Your task to perform on an android device: turn off javascript in the chrome app Image 0: 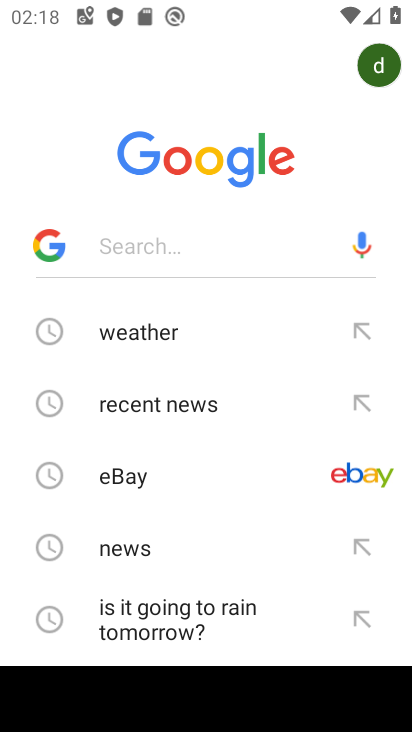
Step 0: press home button
Your task to perform on an android device: turn off javascript in the chrome app Image 1: 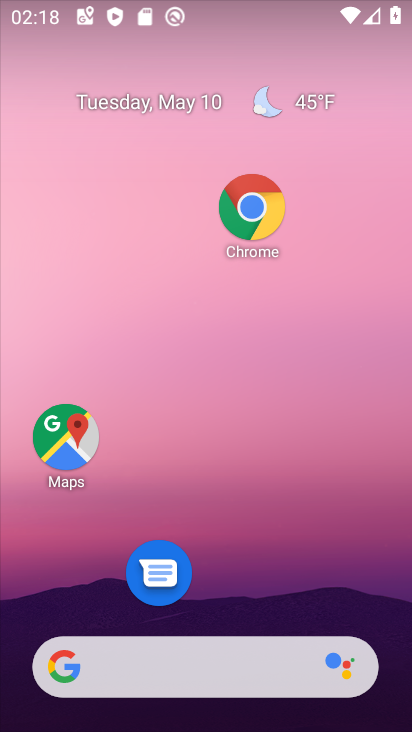
Step 1: drag from (252, 552) to (314, 3)
Your task to perform on an android device: turn off javascript in the chrome app Image 2: 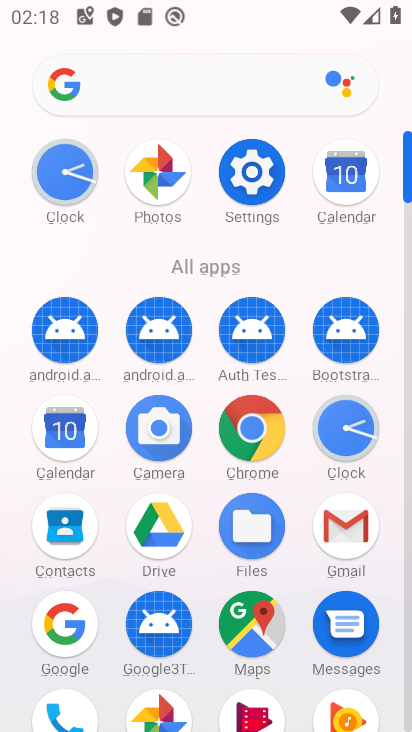
Step 2: click (245, 439)
Your task to perform on an android device: turn off javascript in the chrome app Image 3: 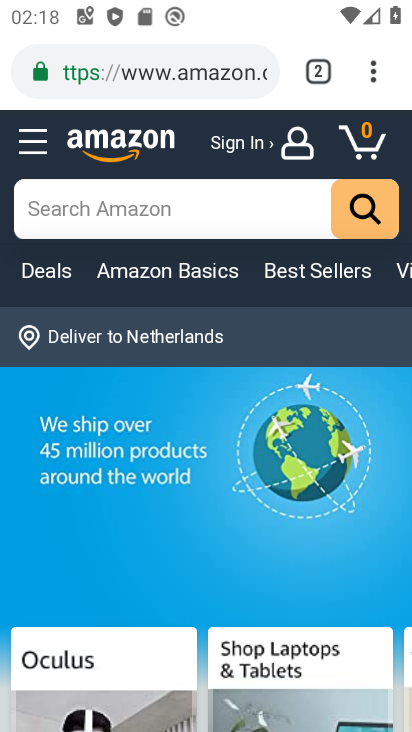
Step 3: click (376, 57)
Your task to perform on an android device: turn off javascript in the chrome app Image 4: 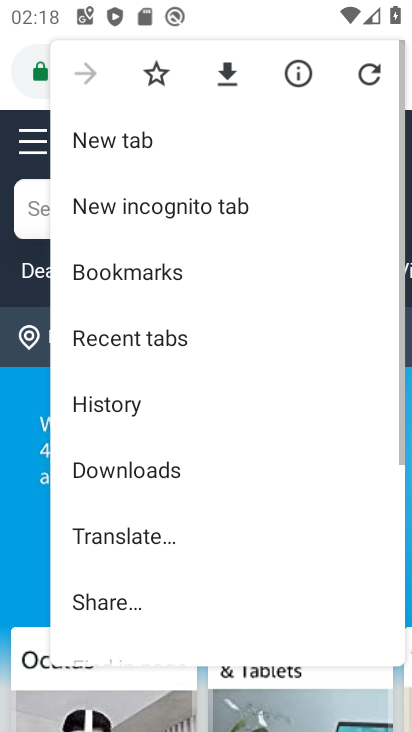
Step 4: drag from (152, 592) to (252, 166)
Your task to perform on an android device: turn off javascript in the chrome app Image 5: 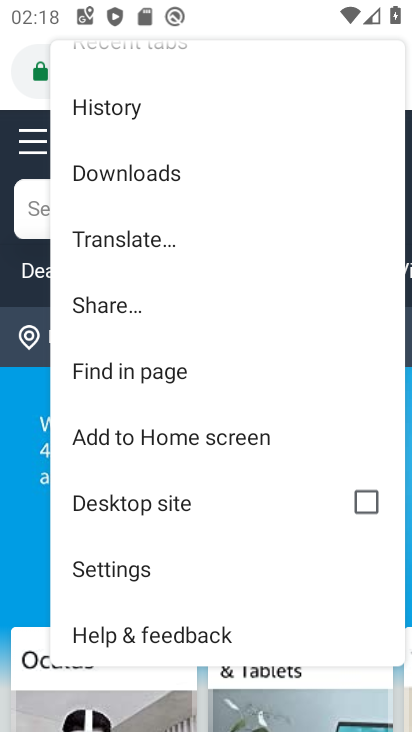
Step 5: click (140, 574)
Your task to perform on an android device: turn off javascript in the chrome app Image 6: 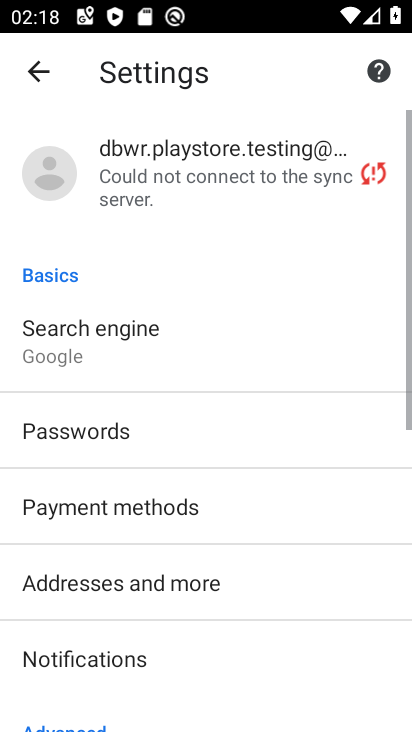
Step 6: drag from (153, 577) to (214, 110)
Your task to perform on an android device: turn off javascript in the chrome app Image 7: 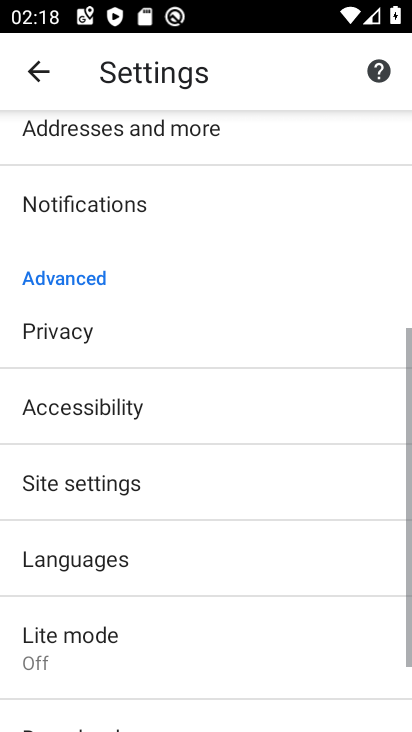
Step 7: click (114, 497)
Your task to perform on an android device: turn off javascript in the chrome app Image 8: 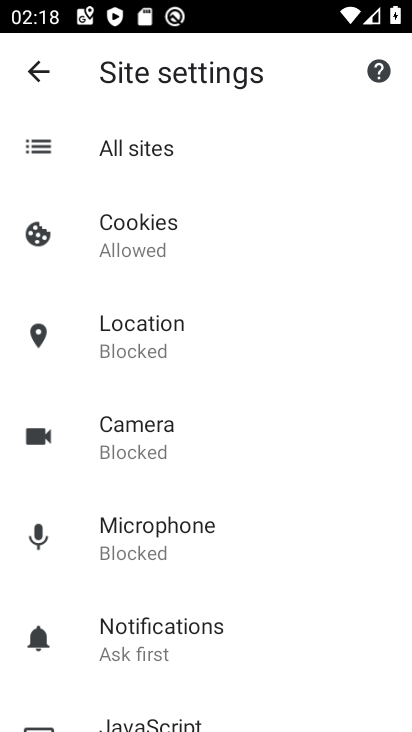
Step 8: drag from (166, 571) to (195, 399)
Your task to perform on an android device: turn off javascript in the chrome app Image 9: 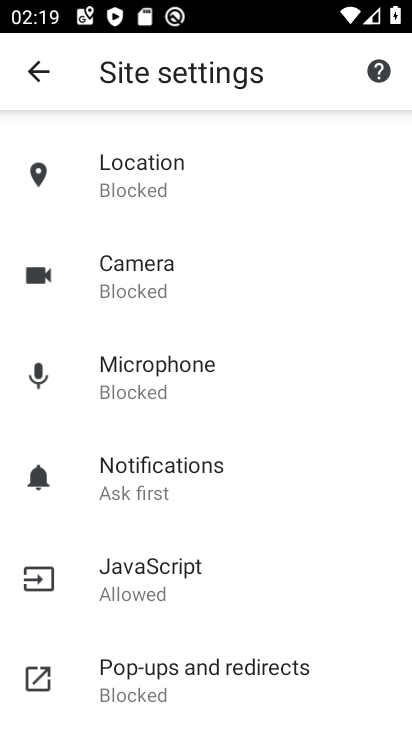
Step 9: click (142, 563)
Your task to perform on an android device: turn off javascript in the chrome app Image 10: 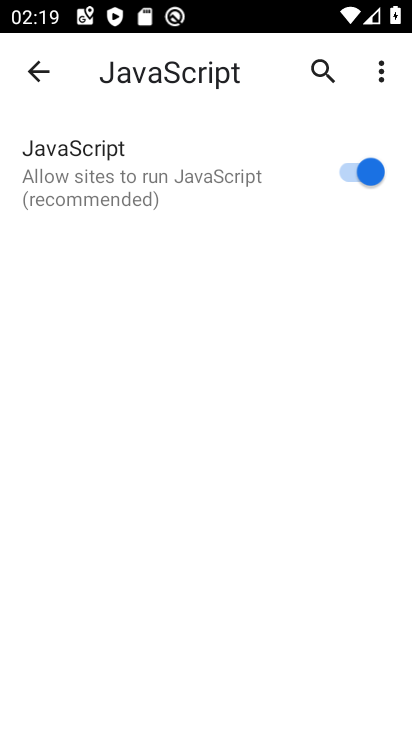
Step 10: click (351, 171)
Your task to perform on an android device: turn off javascript in the chrome app Image 11: 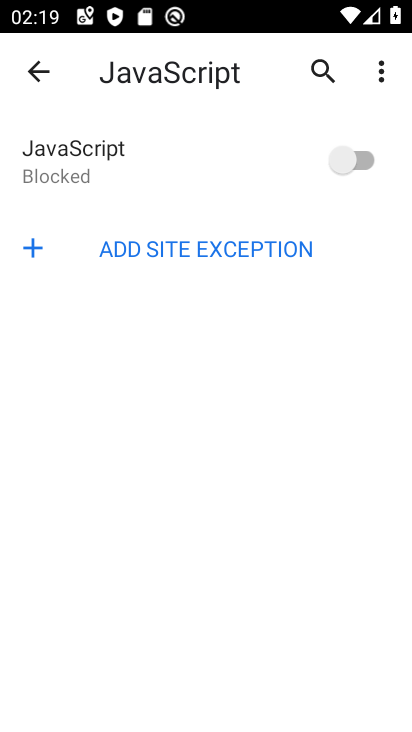
Step 11: task complete